Your task to perform on an android device: Turn on the flashlight Image 0: 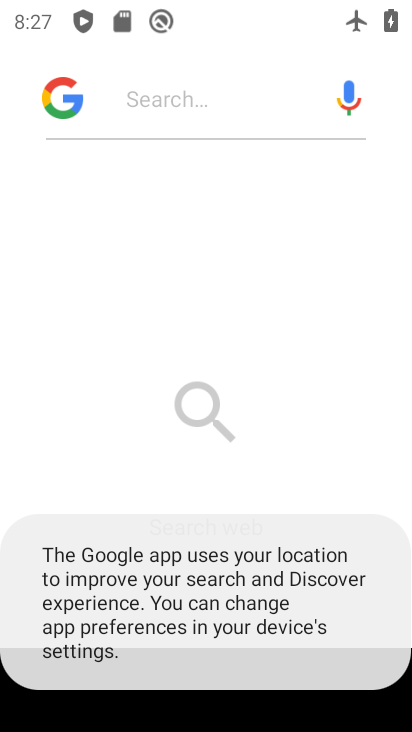
Step 0: press home button
Your task to perform on an android device: Turn on the flashlight Image 1: 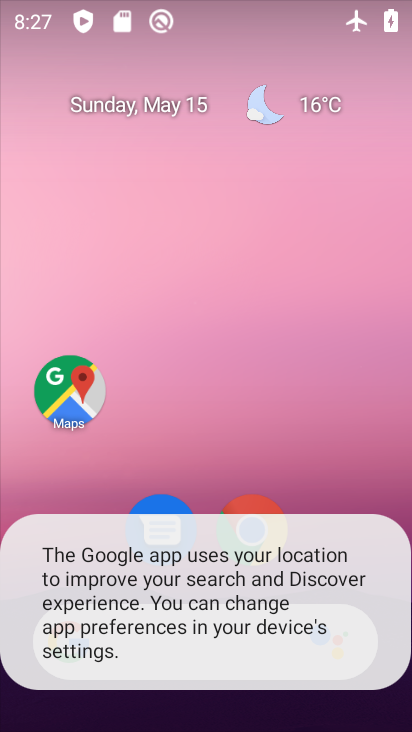
Step 1: drag from (197, 702) to (171, 226)
Your task to perform on an android device: Turn on the flashlight Image 2: 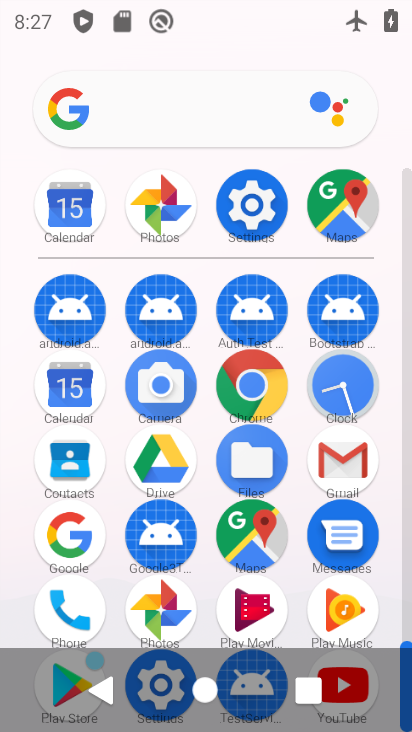
Step 2: click (245, 189)
Your task to perform on an android device: Turn on the flashlight Image 3: 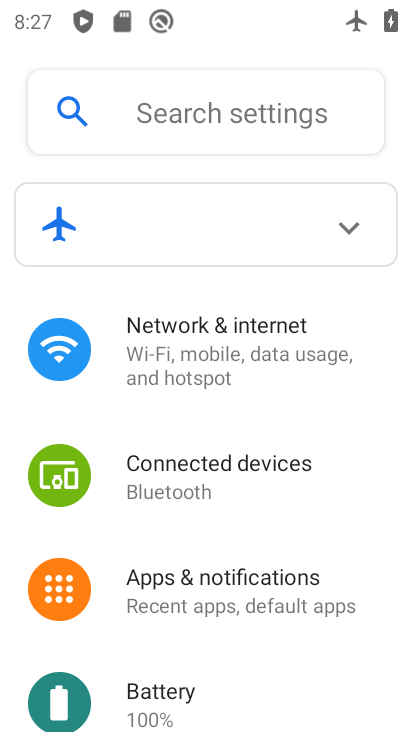
Step 3: task complete